Your task to perform on an android device: turn off data saver in the chrome app Image 0: 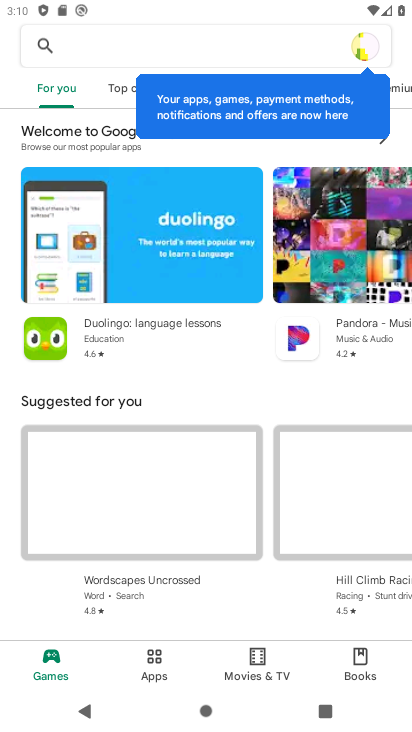
Step 0: press home button
Your task to perform on an android device: turn off data saver in the chrome app Image 1: 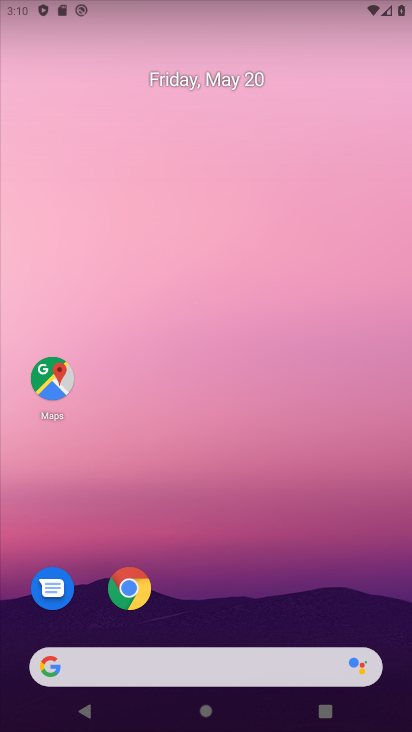
Step 1: click (129, 590)
Your task to perform on an android device: turn off data saver in the chrome app Image 2: 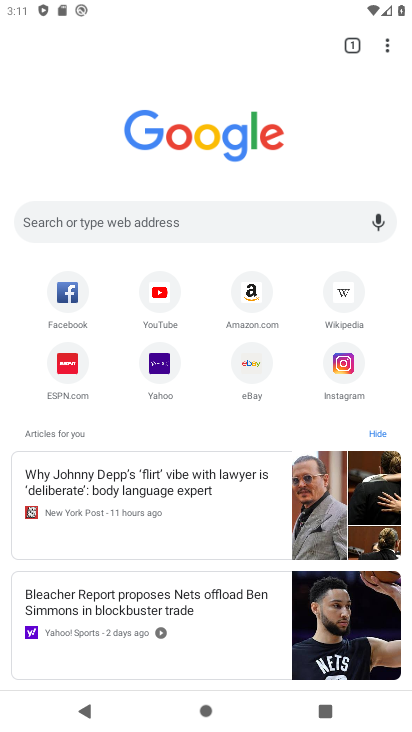
Step 2: click (386, 48)
Your task to perform on an android device: turn off data saver in the chrome app Image 3: 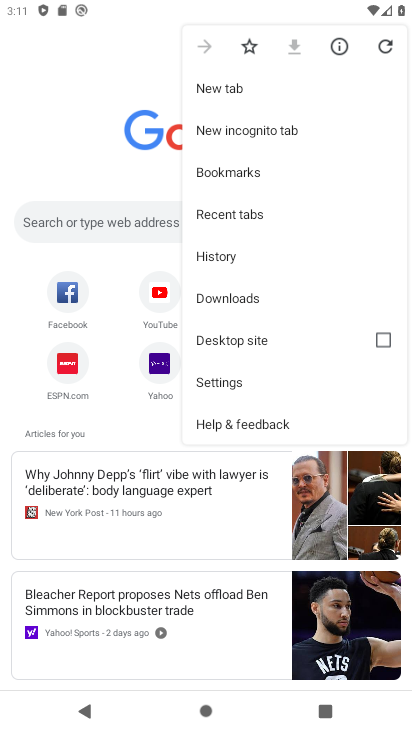
Step 3: click (247, 380)
Your task to perform on an android device: turn off data saver in the chrome app Image 4: 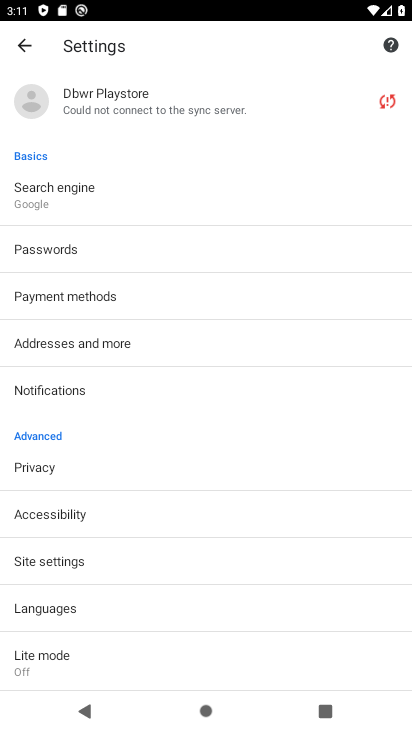
Step 4: click (83, 674)
Your task to perform on an android device: turn off data saver in the chrome app Image 5: 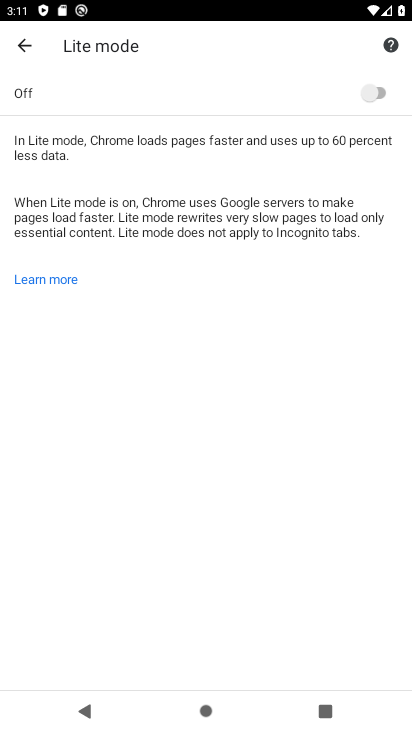
Step 5: task complete